Your task to perform on an android device: uninstall "McDonald's" Image 0: 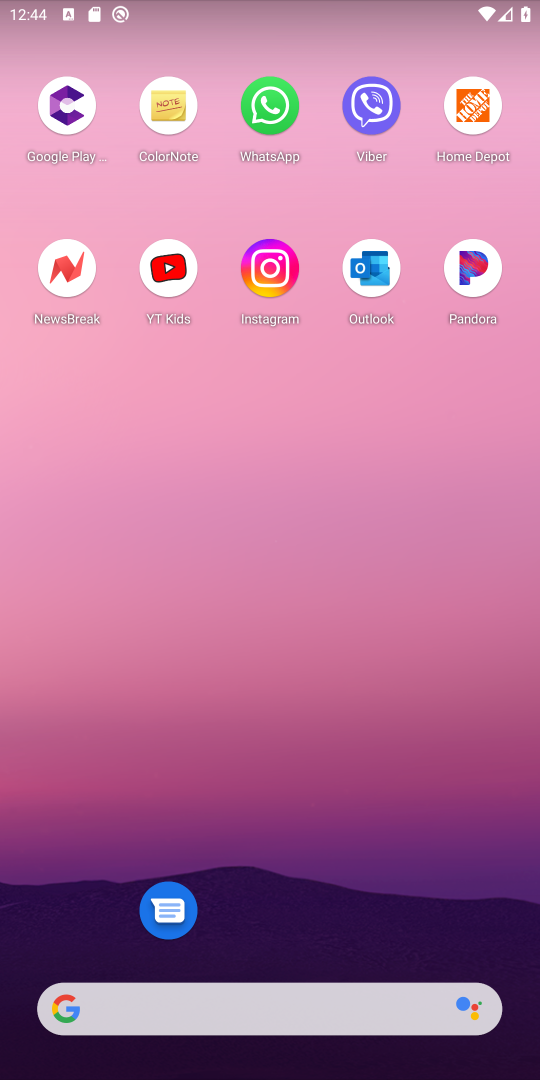
Step 0: drag from (221, 925) to (264, 84)
Your task to perform on an android device: uninstall "McDonald's" Image 1: 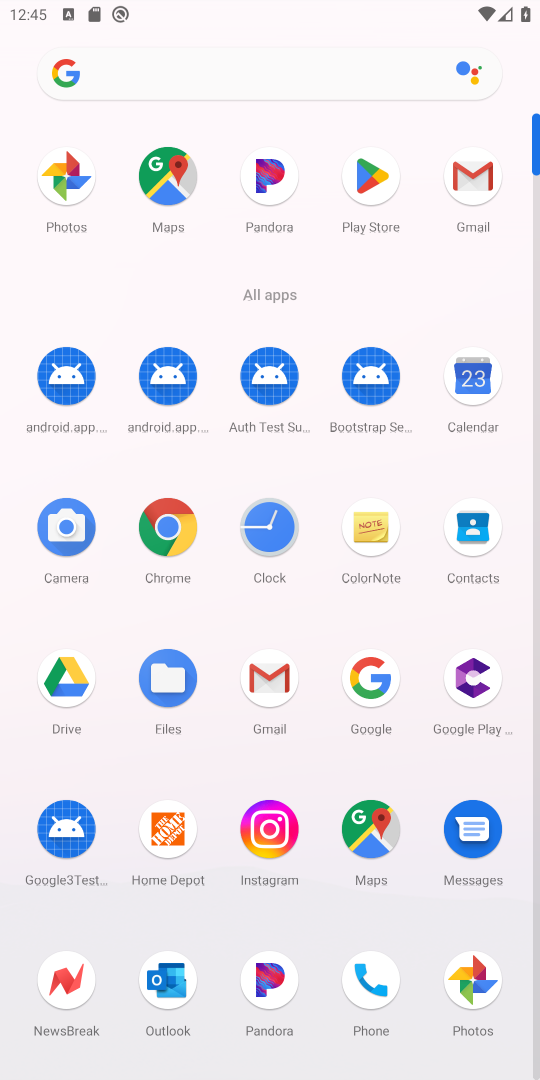
Step 1: click (378, 179)
Your task to perform on an android device: uninstall "McDonald's" Image 2: 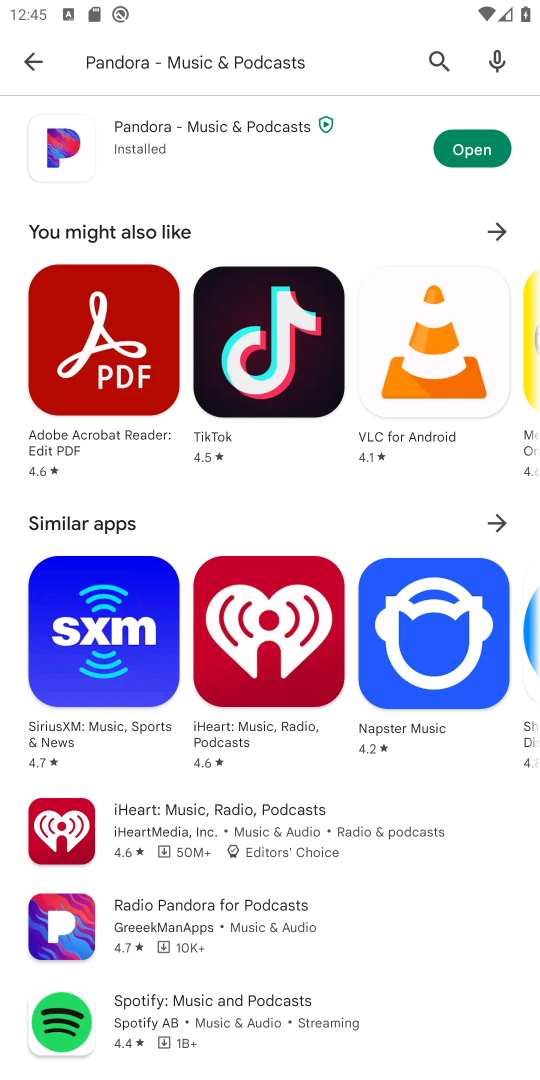
Step 2: press back button
Your task to perform on an android device: uninstall "McDonald's" Image 3: 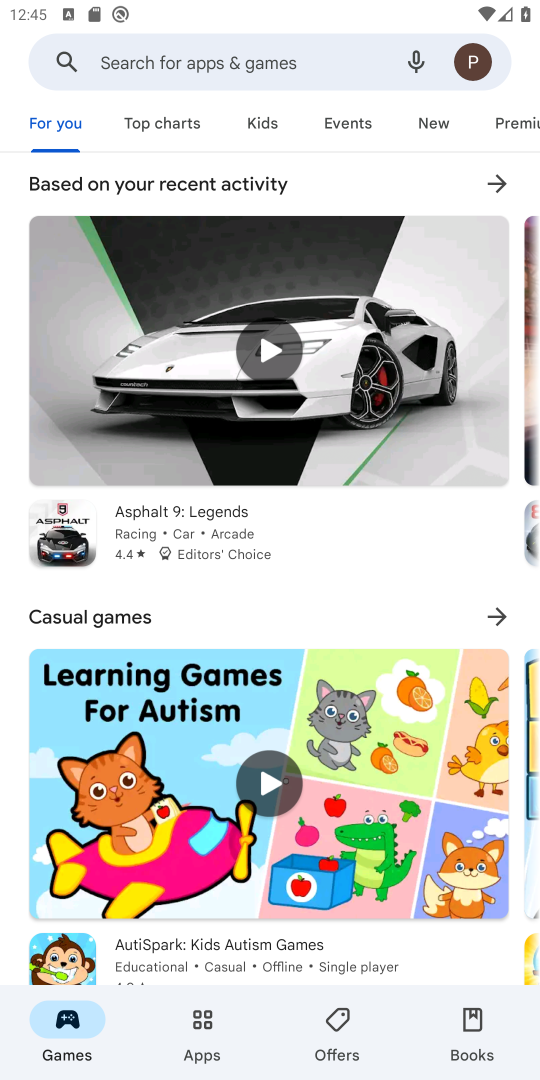
Step 3: click (247, 74)
Your task to perform on an android device: uninstall "McDonald's" Image 4: 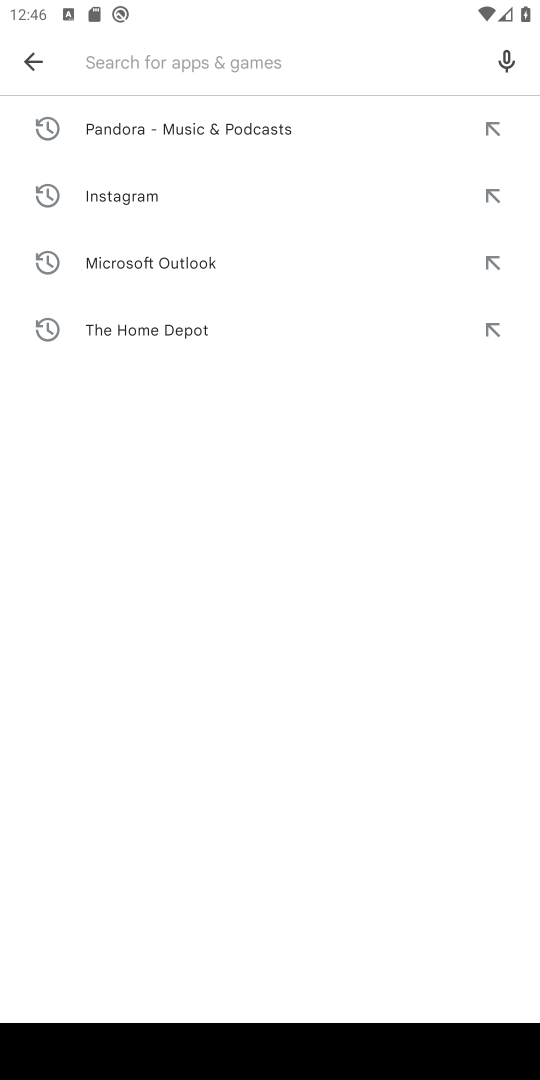
Step 4: type "McDonald's"
Your task to perform on an android device: uninstall "McDonald's" Image 5: 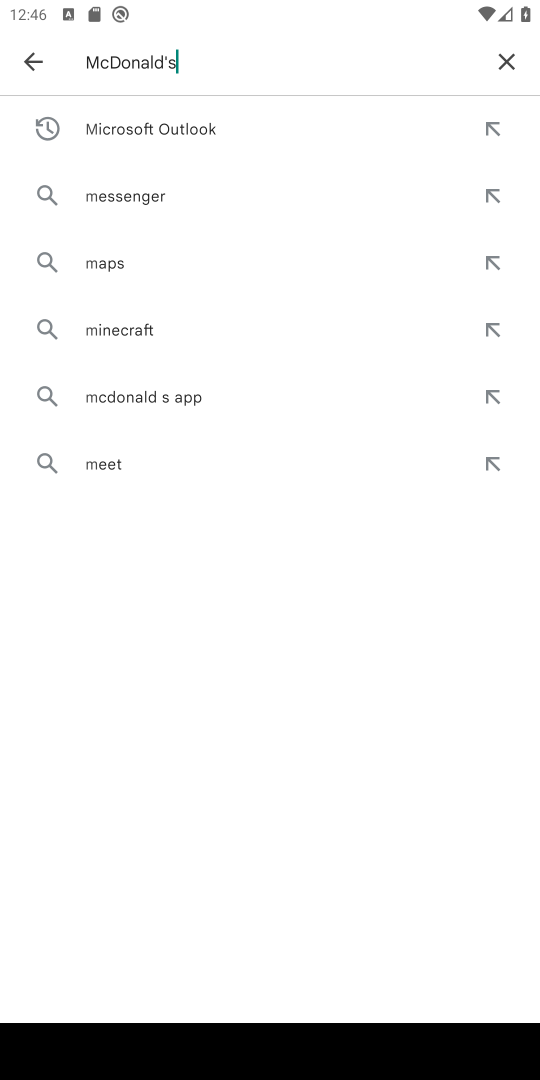
Step 5: press enter
Your task to perform on an android device: uninstall "McDonald's" Image 6: 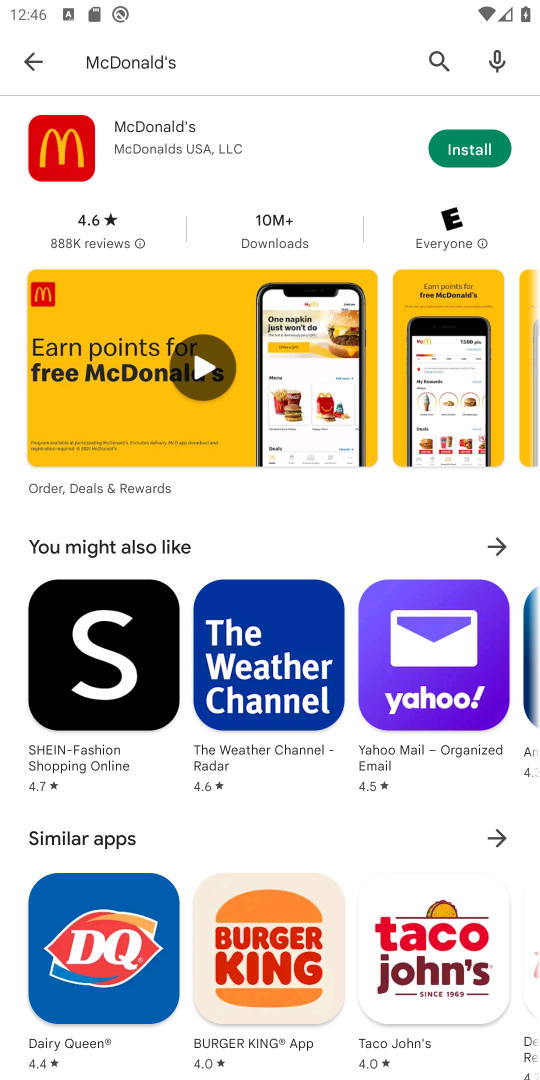
Step 6: task complete